Your task to perform on an android device: delete browsing data in the chrome app Image 0: 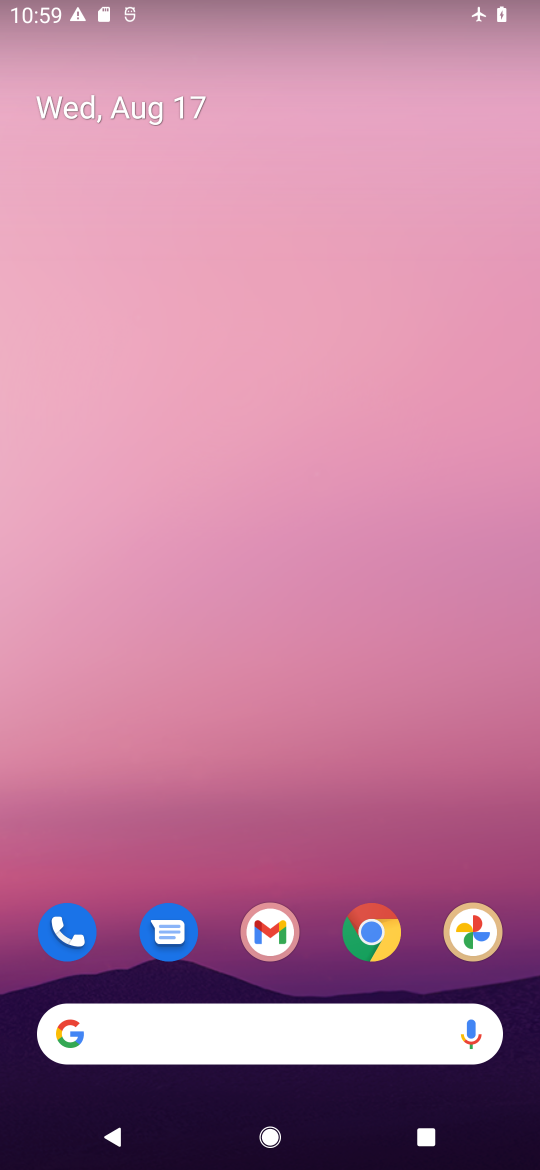
Step 0: click (370, 925)
Your task to perform on an android device: delete browsing data in the chrome app Image 1: 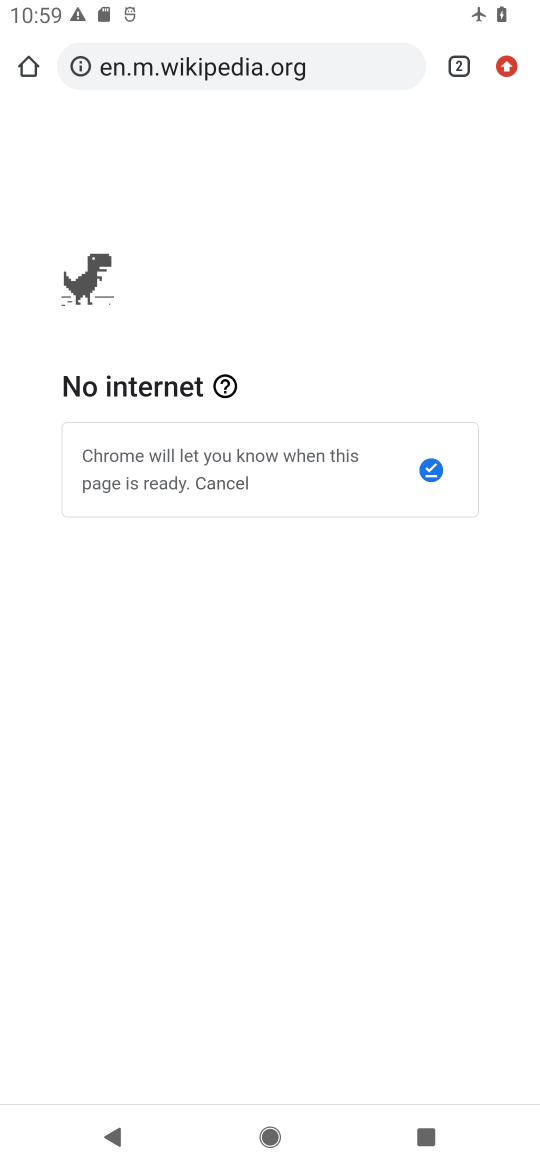
Step 1: click (499, 70)
Your task to perform on an android device: delete browsing data in the chrome app Image 2: 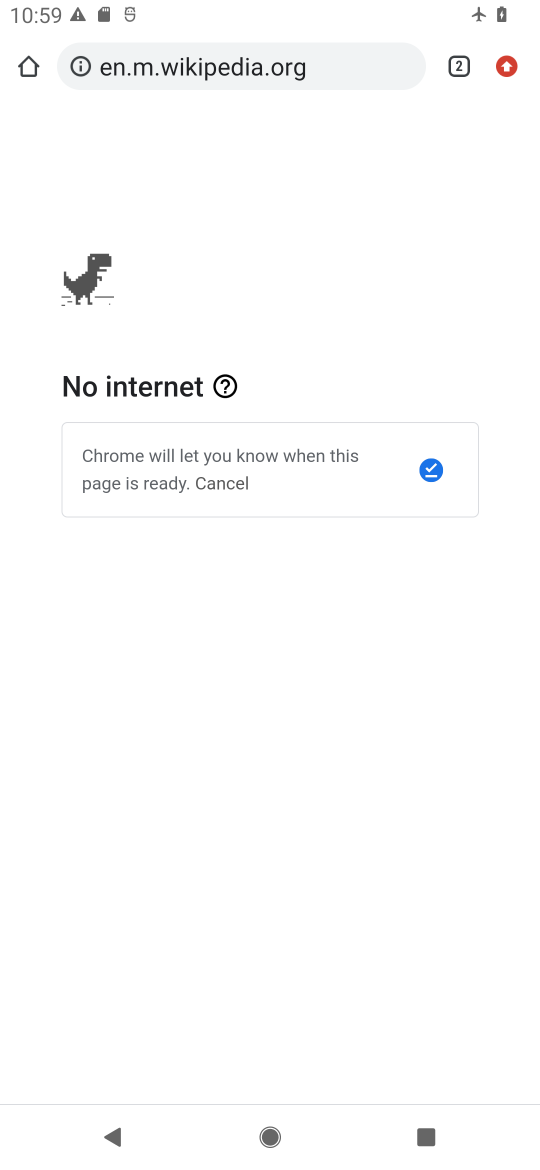
Step 2: click (499, 70)
Your task to perform on an android device: delete browsing data in the chrome app Image 3: 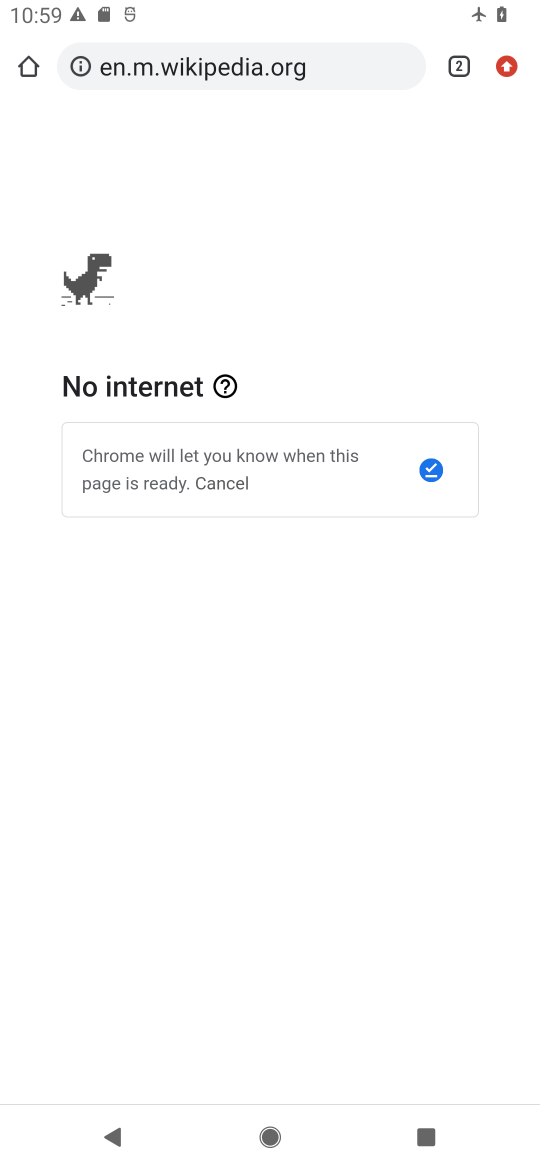
Step 3: click (499, 70)
Your task to perform on an android device: delete browsing data in the chrome app Image 4: 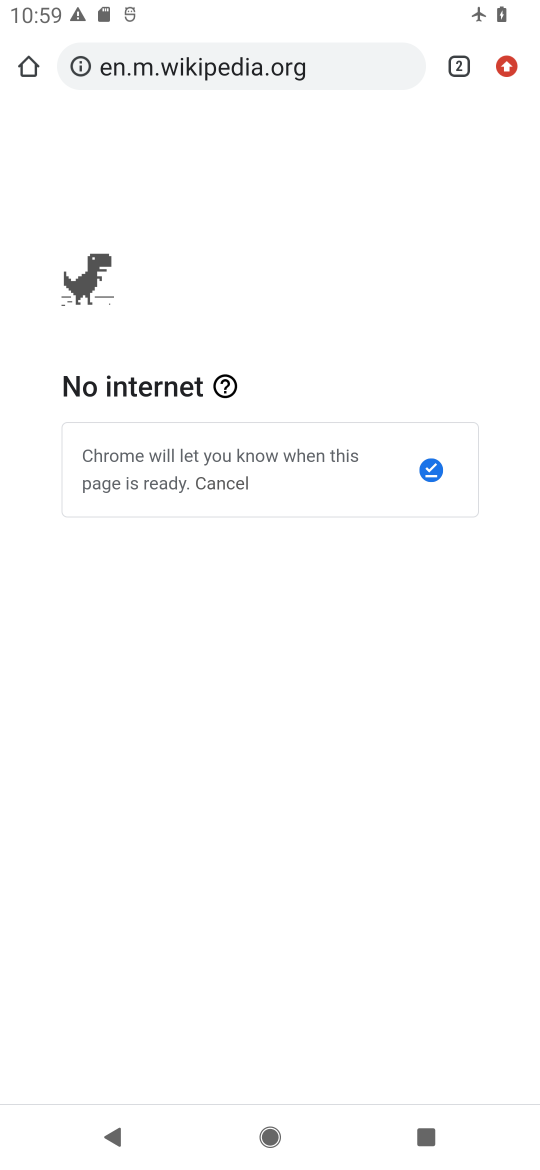
Step 4: click (499, 70)
Your task to perform on an android device: delete browsing data in the chrome app Image 5: 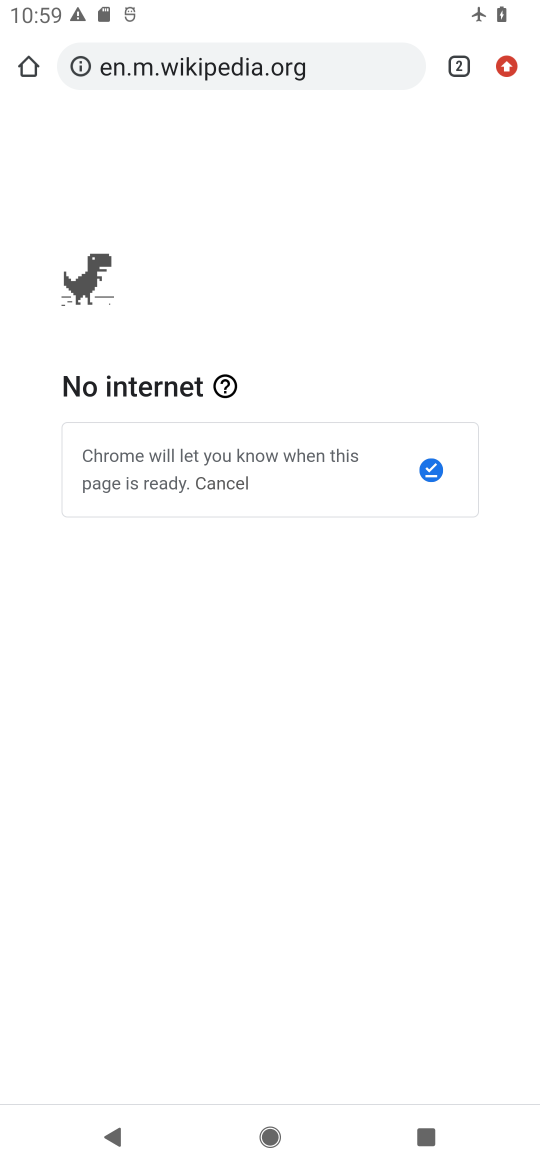
Step 5: click (502, 71)
Your task to perform on an android device: delete browsing data in the chrome app Image 6: 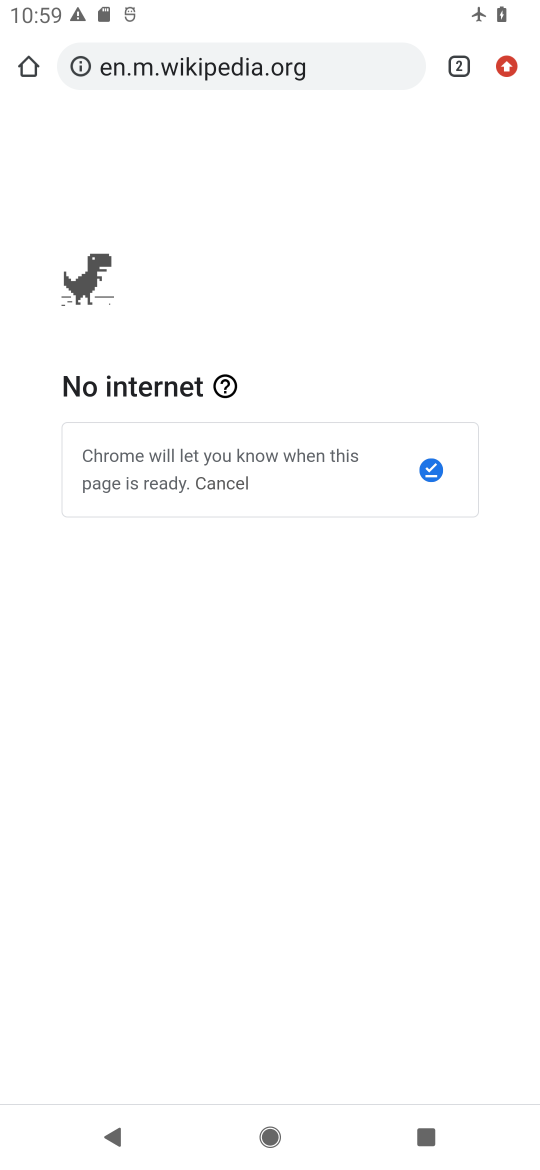
Step 6: click (502, 71)
Your task to perform on an android device: delete browsing data in the chrome app Image 7: 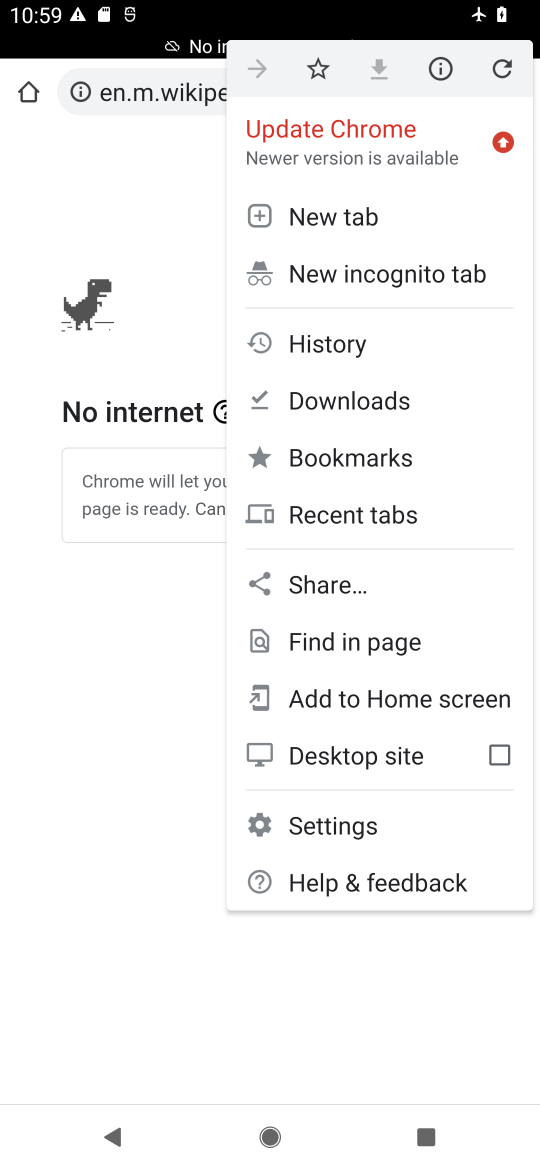
Step 7: click (328, 347)
Your task to perform on an android device: delete browsing data in the chrome app Image 8: 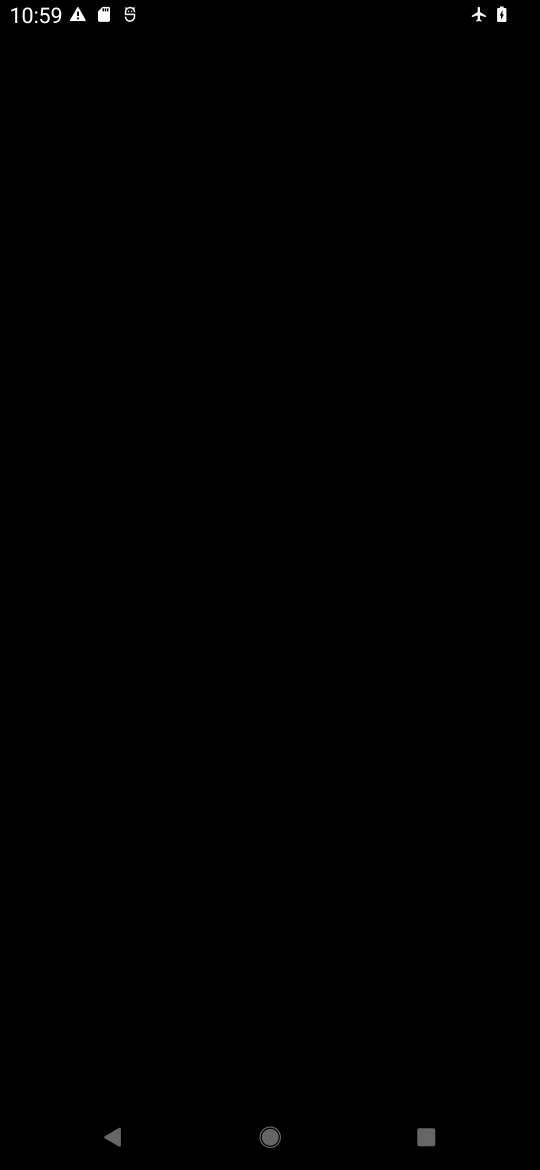
Step 8: task complete